Your task to perform on an android device: Open Chrome and go to settings Image 0: 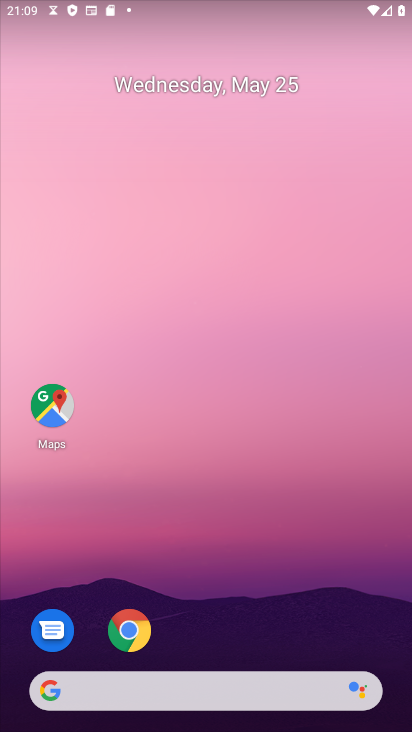
Step 0: drag from (243, 633) to (255, 145)
Your task to perform on an android device: Open Chrome and go to settings Image 1: 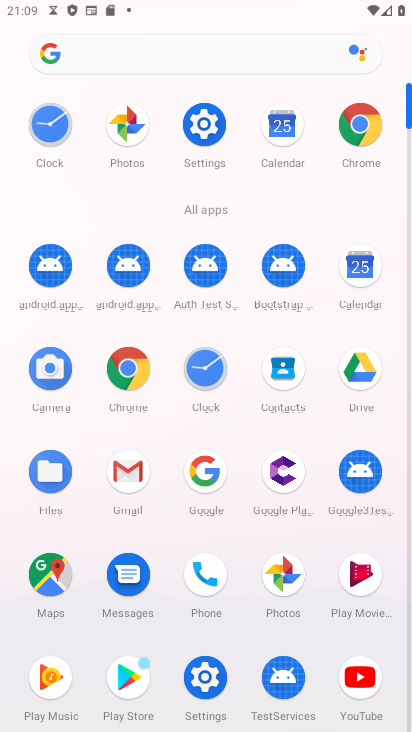
Step 1: click (355, 119)
Your task to perform on an android device: Open Chrome and go to settings Image 2: 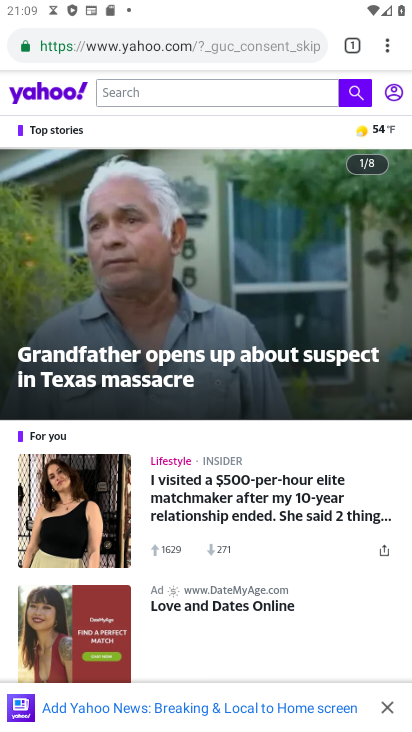
Step 2: click (384, 48)
Your task to perform on an android device: Open Chrome and go to settings Image 3: 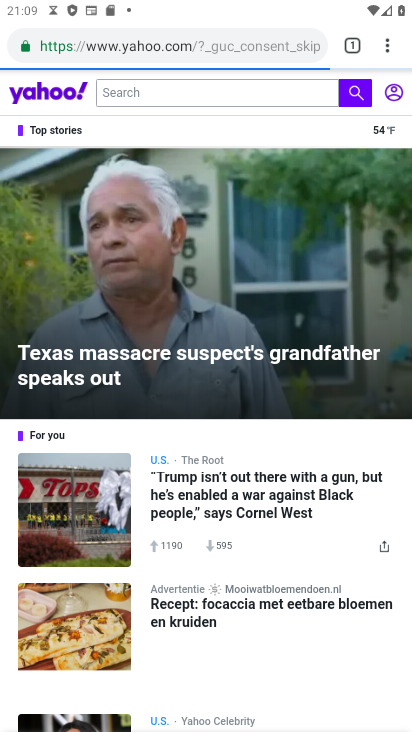
Step 3: click (382, 50)
Your task to perform on an android device: Open Chrome and go to settings Image 4: 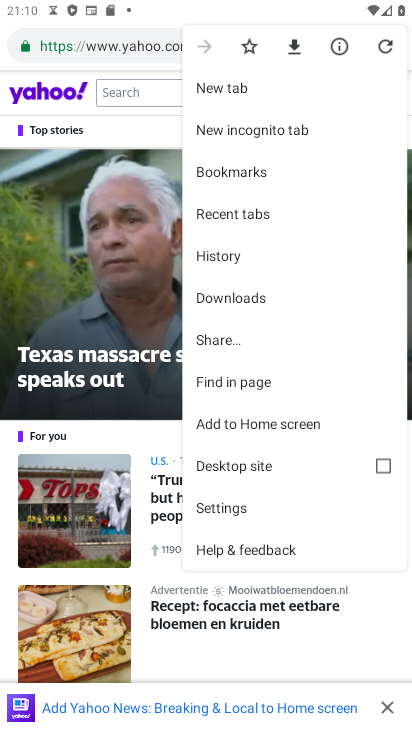
Step 4: click (244, 505)
Your task to perform on an android device: Open Chrome and go to settings Image 5: 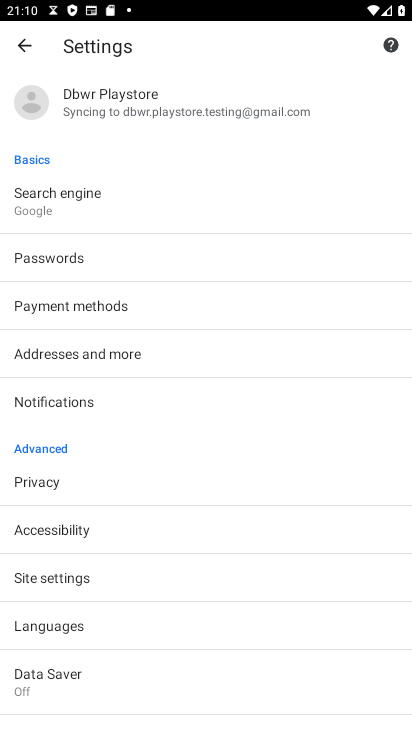
Step 5: task complete